Your task to perform on an android device: create a new album in the google photos Image 0: 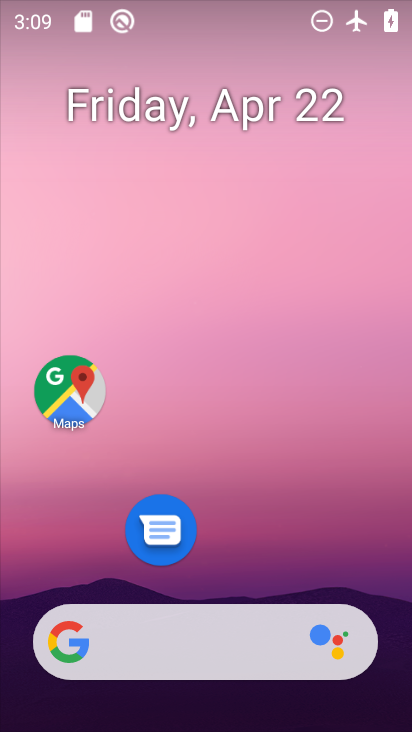
Step 0: drag from (235, 572) to (257, 88)
Your task to perform on an android device: create a new album in the google photos Image 1: 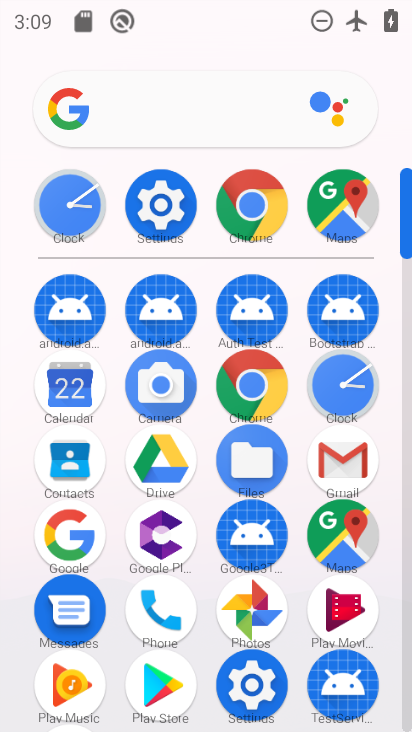
Step 1: click (248, 596)
Your task to perform on an android device: create a new album in the google photos Image 2: 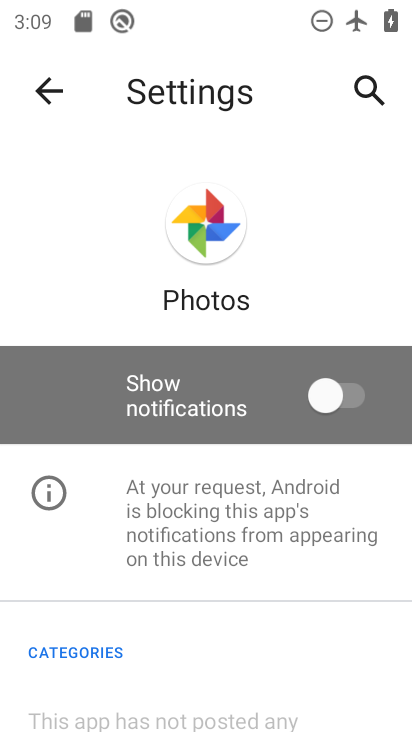
Step 2: click (44, 90)
Your task to perform on an android device: create a new album in the google photos Image 3: 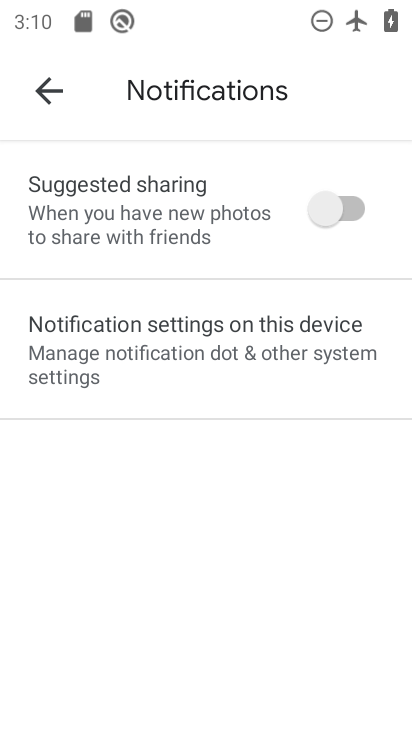
Step 3: click (168, 337)
Your task to perform on an android device: create a new album in the google photos Image 4: 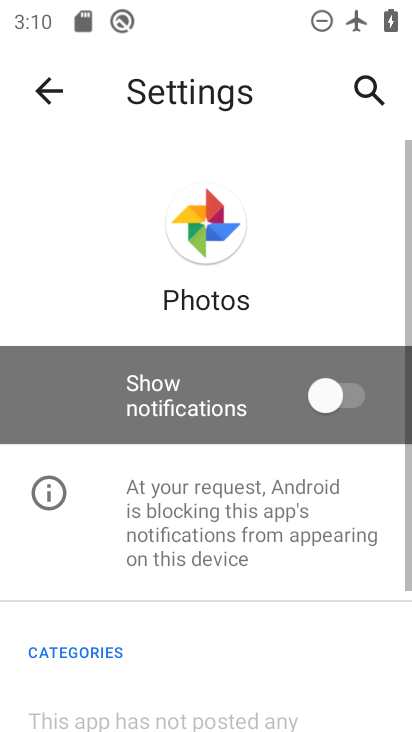
Step 4: click (43, 85)
Your task to perform on an android device: create a new album in the google photos Image 5: 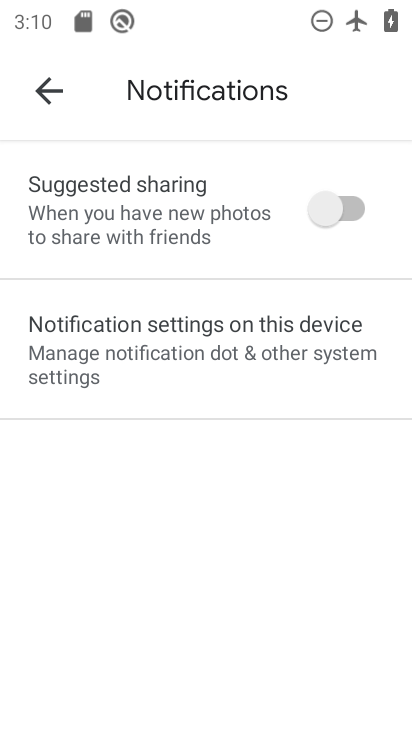
Step 5: click (52, 90)
Your task to perform on an android device: create a new album in the google photos Image 6: 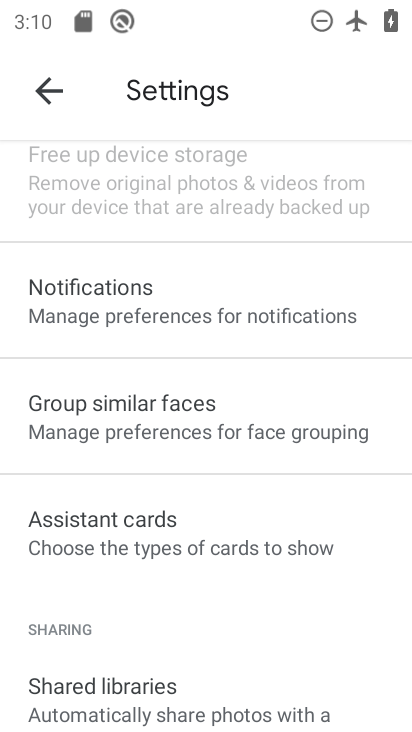
Step 6: click (40, 89)
Your task to perform on an android device: create a new album in the google photos Image 7: 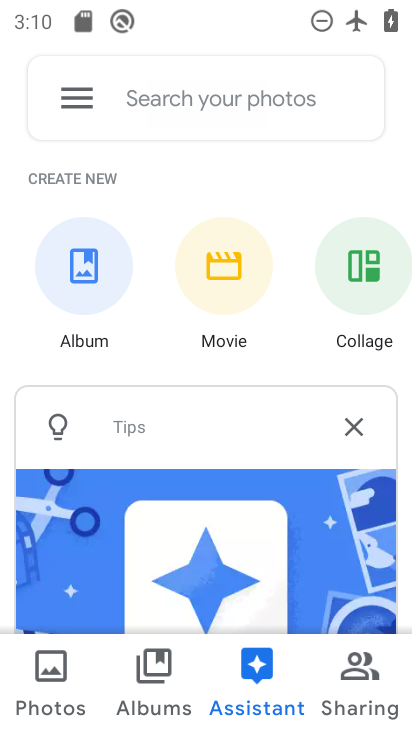
Step 7: click (40, 674)
Your task to perform on an android device: create a new album in the google photos Image 8: 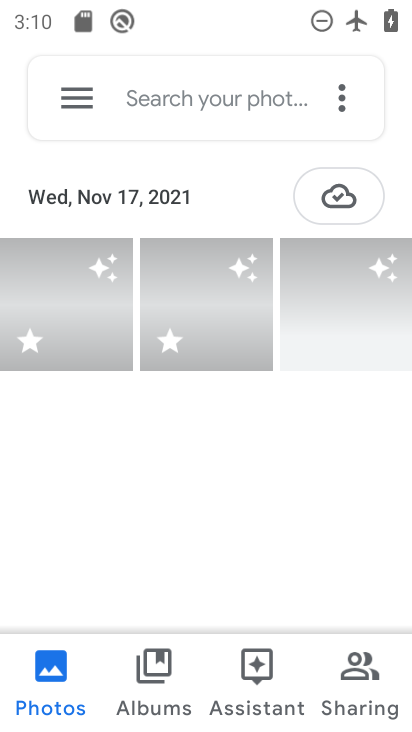
Step 8: click (97, 290)
Your task to perform on an android device: create a new album in the google photos Image 9: 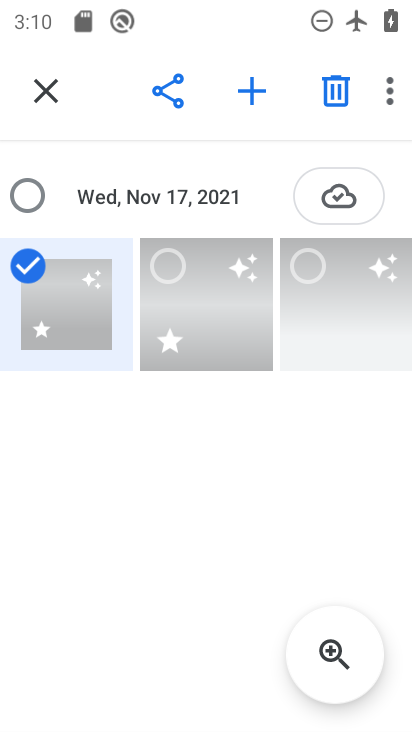
Step 9: click (259, 94)
Your task to perform on an android device: create a new album in the google photos Image 10: 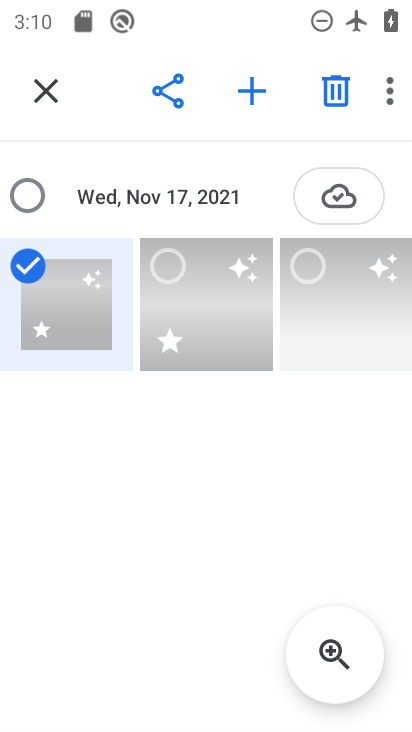
Step 10: click (251, 92)
Your task to perform on an android device: create a new album in the google photos Image 11: 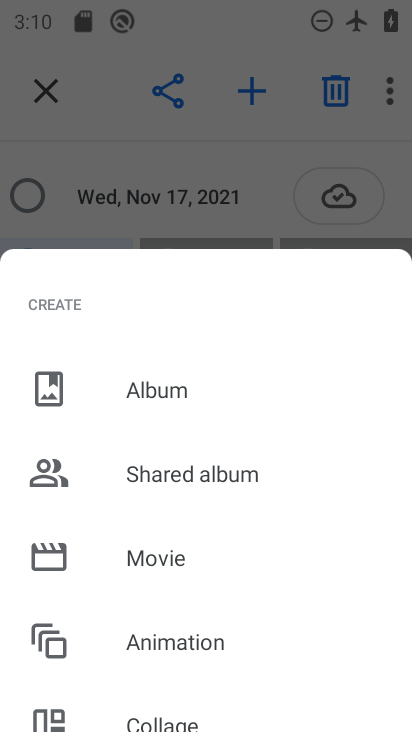
Step 11: click (141, 381)
Your task to perform on an android device: create a new album in the google photos Image 12: 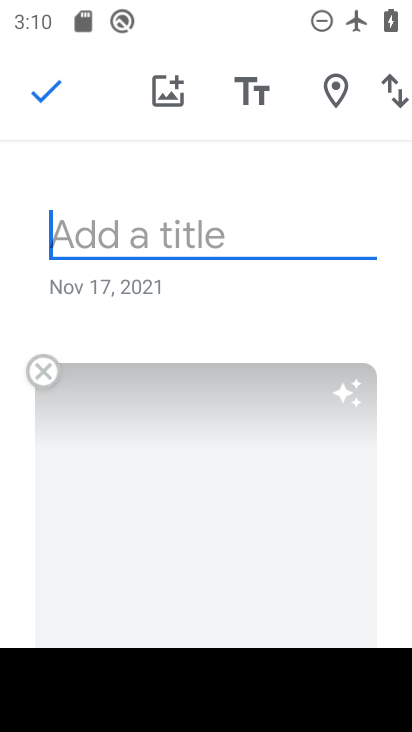
Step 12: click (186, 230)
Your task to perform on an android device: create a new album in the google photos Image 13: 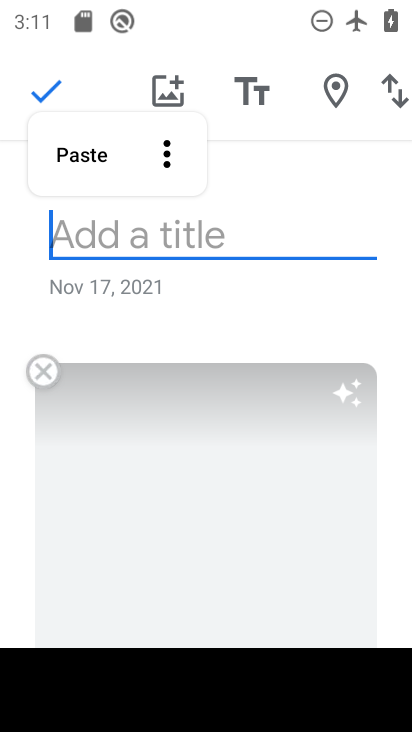
Step 13: type "lo"
Your task to perform on an android device: create a new album in the google photos Image 14: 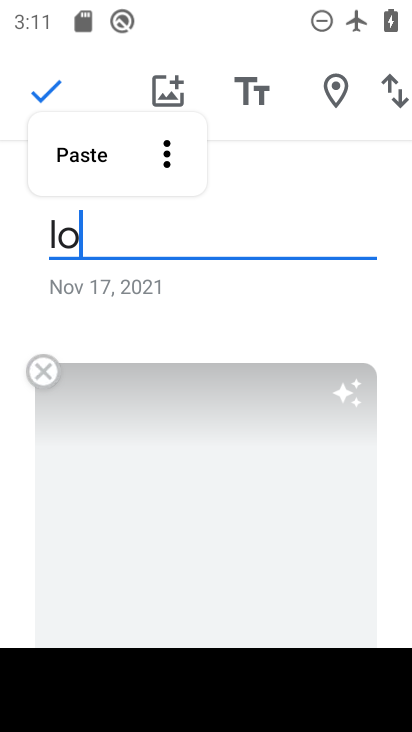
Step 14: type ""
Your task to perform on an android device: create a new album in the google photos Image 15: 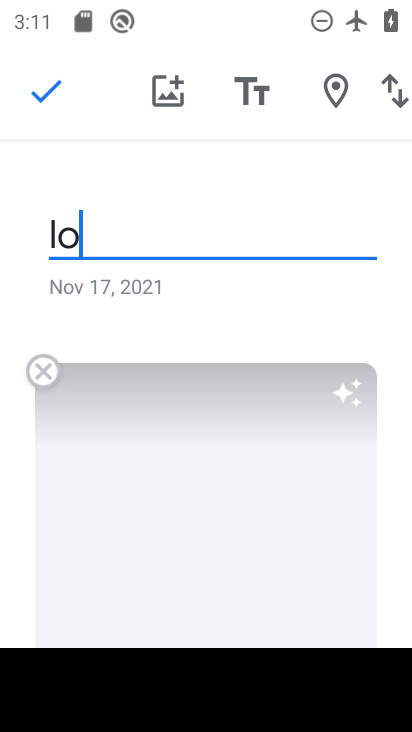
Step 15: click (28, 76)
Your task to perform on an android device: create a new album in the google photos Image 16: 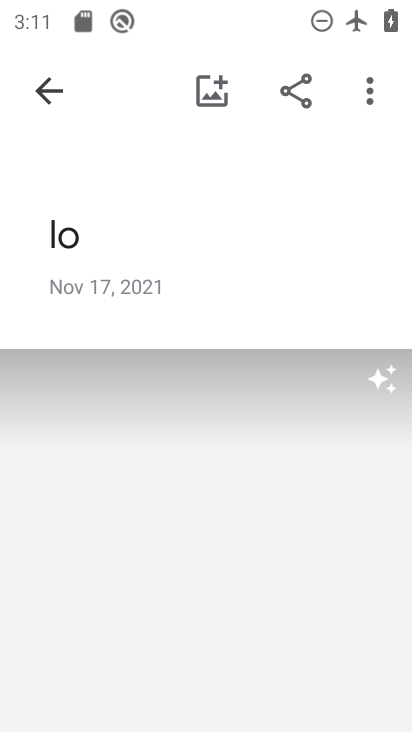
Step 16: task complete